Your task to perform on an android device: turn on showing notifications on the lock screen Image 0: 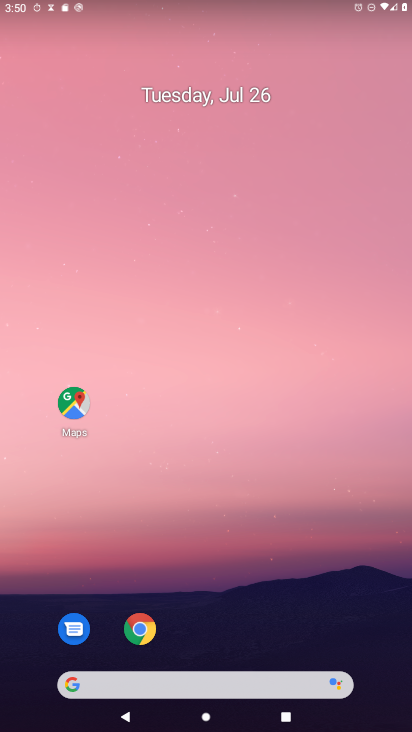
Step 0: press home button
Your task to perform on an android device: turn on showing notifications on the lock screen Image 1: 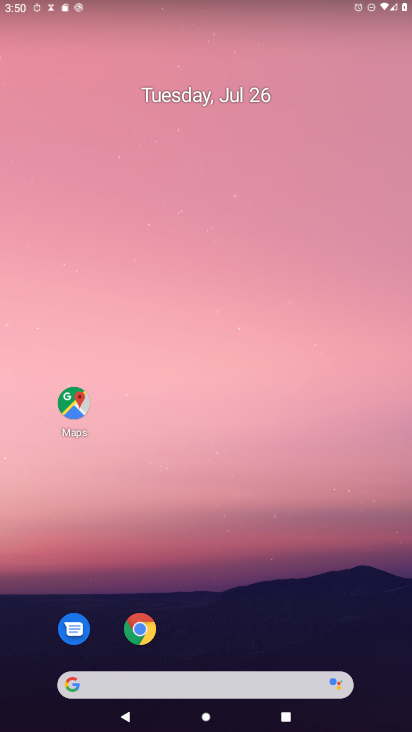
Step 1: drag from (293, 642) to (279, 129)
Your task to perform on an android device: turn on showing notifications on the lock screen Image 2: 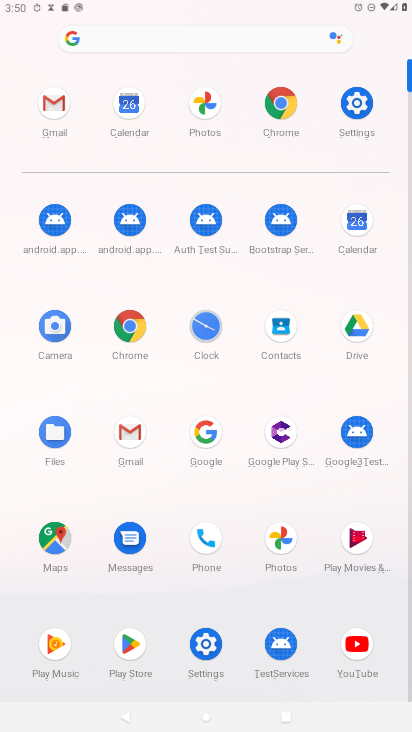
Step 2: click (358, 90)
Your task to perform on an android device: turn on showing notifications on the lock screen Image 3: 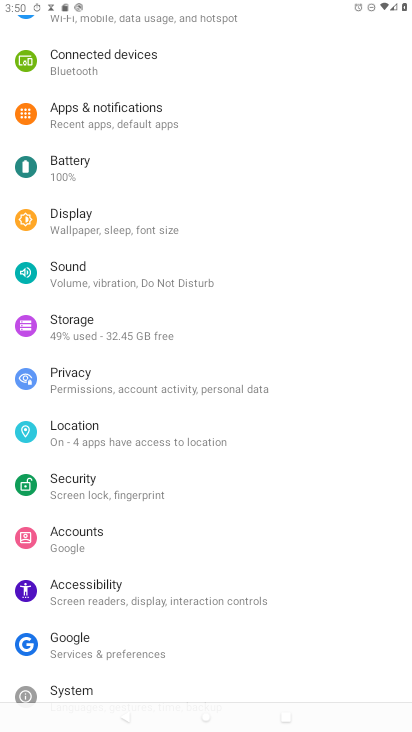
Step 3: click (89, 120)
Your task to perform on an android device: turn on showing notifications on the lock screen Image 4: 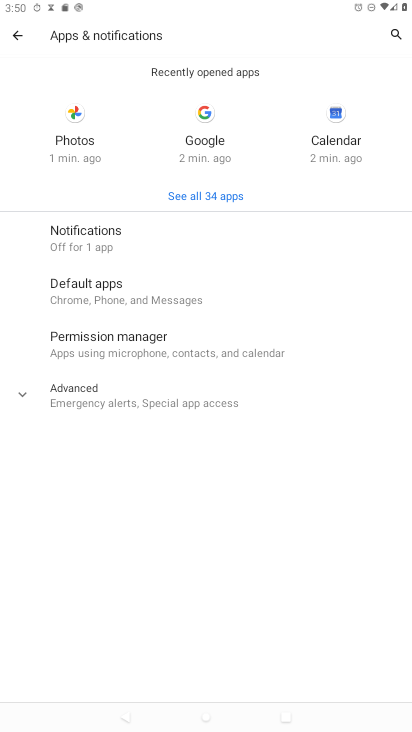
Step 4: click (124, 236)
Your task to perform on an android device: turn on showing notifications on the lock screen Image 5: 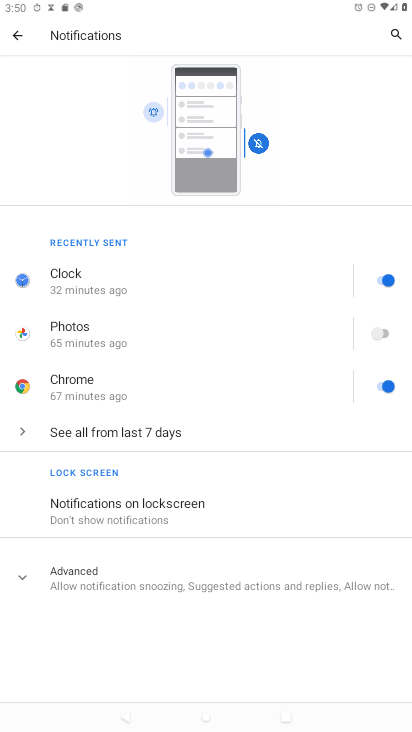
Step 5: click (131, 507)
Your task to perform on an android device: turn on showing notifications on the lock screen Image 6: 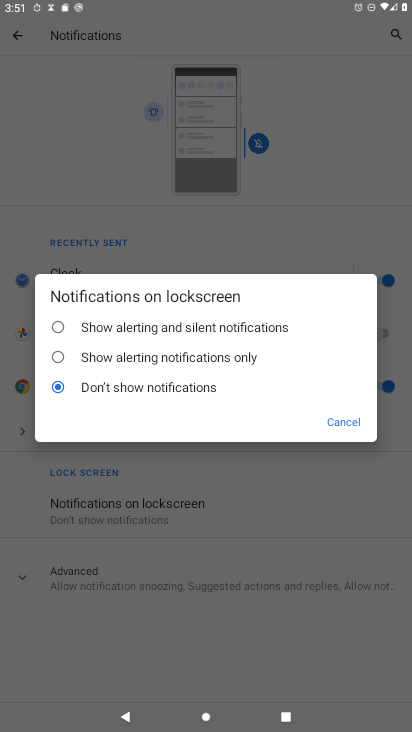
Step 6: click (59, 319)
Your task to perform on an android device: turn on showing notifications on the lock screen Image 7: 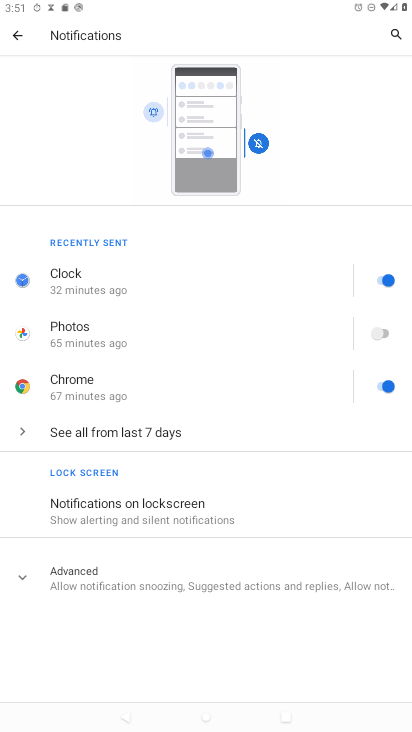
Step 7: task complete